Your task to perform on an android device: toggle pop-ups in chrome Image 0: 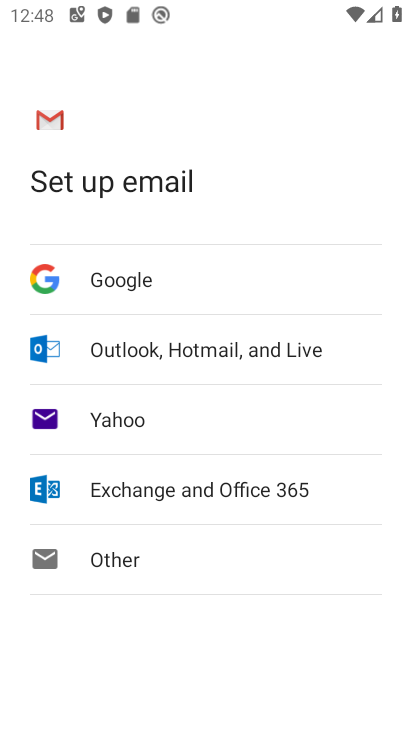
Step 0: press home button
Your task to perform on an android device: toggle pop-ups in chrome Image 1: 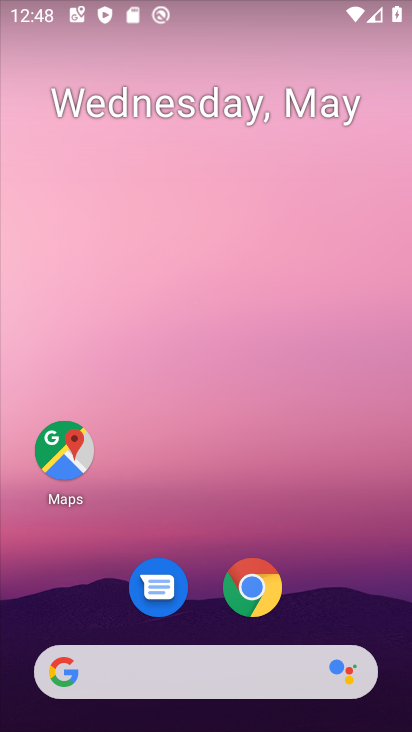
Step 1: drag from (387, 592) to (370, 237)
Your task to perform on an android device: toggle pop-ups in chrome Image 2: 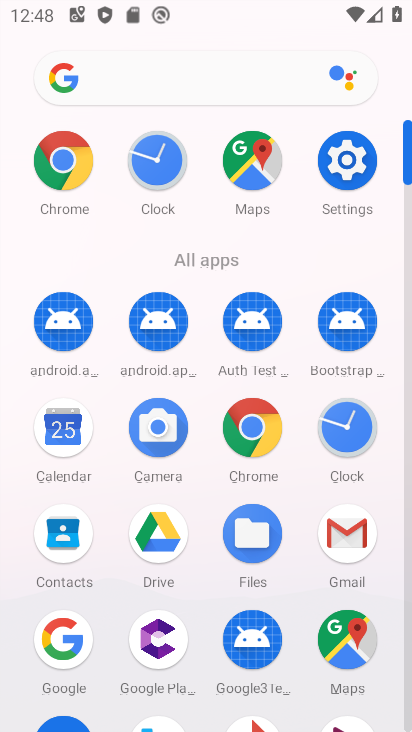
Step 2: click (270, 444)
Your task to perform on an android device: toggle pop-ups in chrome Image 3: 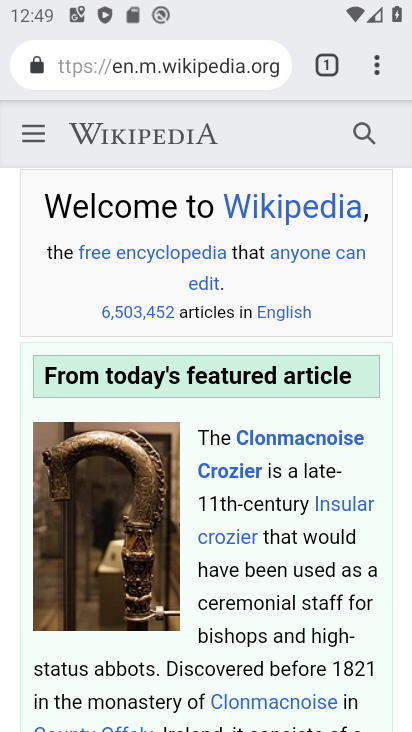
Step 3: click (377, 62)
Your task to perform on an android device: toggle pop-ups in chrome Image 4: 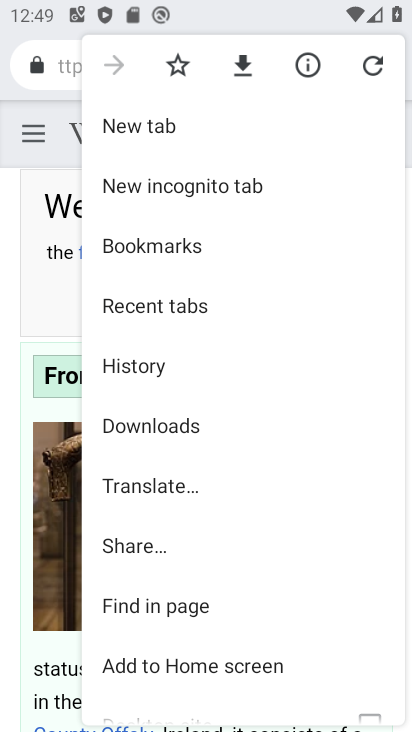
Step 4: drag from (300, 490) to (302, 372)
Your task to perform on an android device: toggle pop-ups in chrome Image 5: 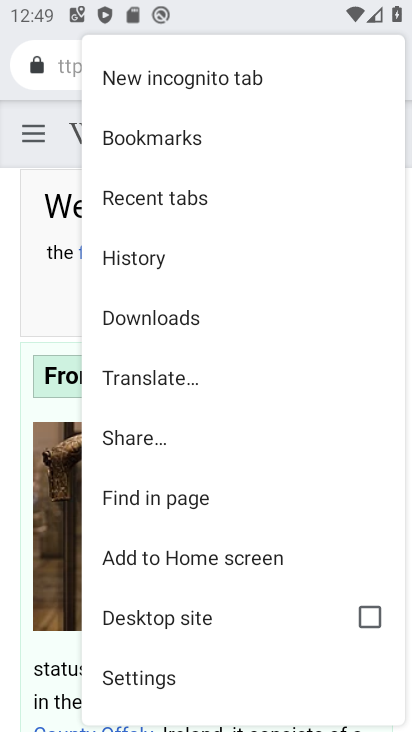
Step 5: drag from (313, 602) to (328, 461)
Your task to perform on an android device: toggle pop-ups in chrome Image 6: 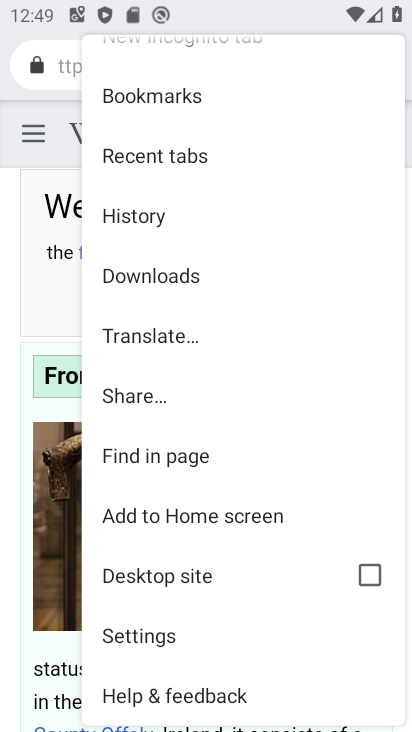
Step 6: click (160, 632)
Your task to perform on an android device: toggle pop-ups in chrome Image 7: 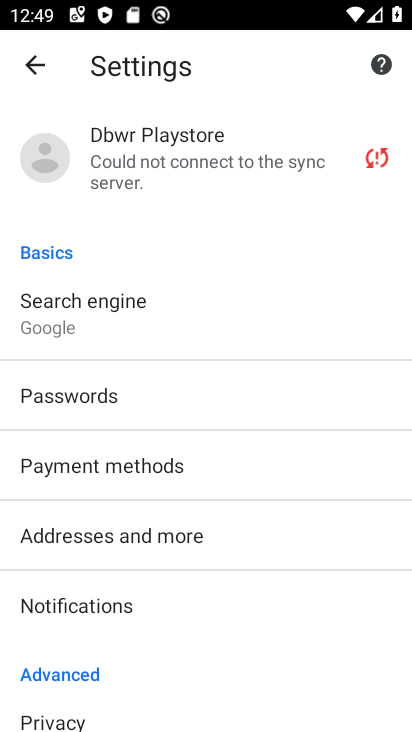
Step 7: drag from (289, 587) to (294, 494)
Your task to perform on an android device: toggle pop-ups in chrome Image 8: 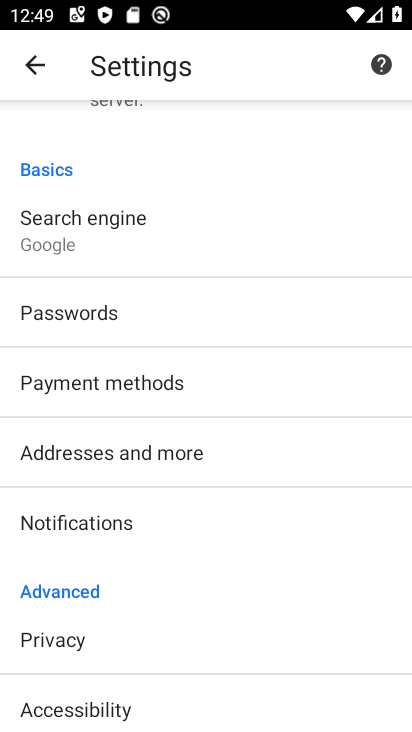
Step 8: drag from (313, 615) to (307, 517)
Your task to perform on an android device: toggle pop-ups in chrome Image 9: 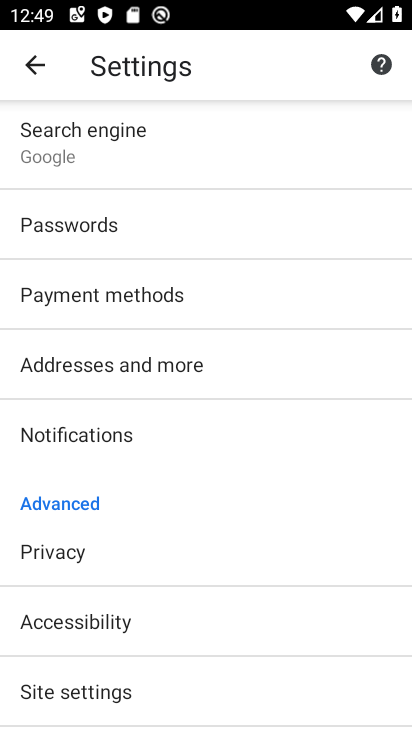
Step 9: drag from (317, 622) to (307, 528)
Your task to perform on an android device: toggle pop-ups in chrome Image 10: 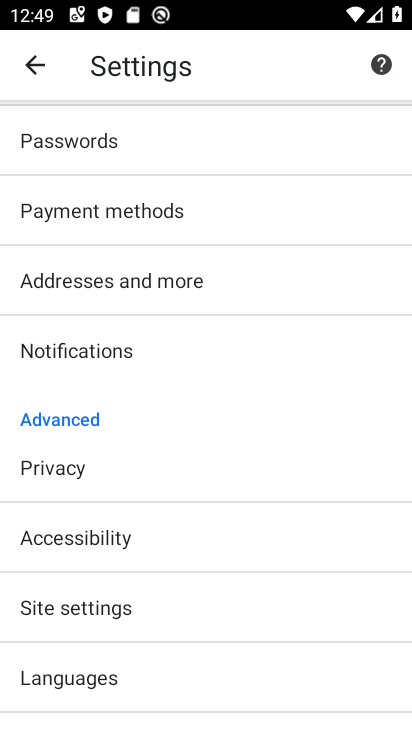
Step 10: drag from (315, 594) to (320, 512)
Your task to perform on an android device: toggle pop-ups in chrome Image 11: 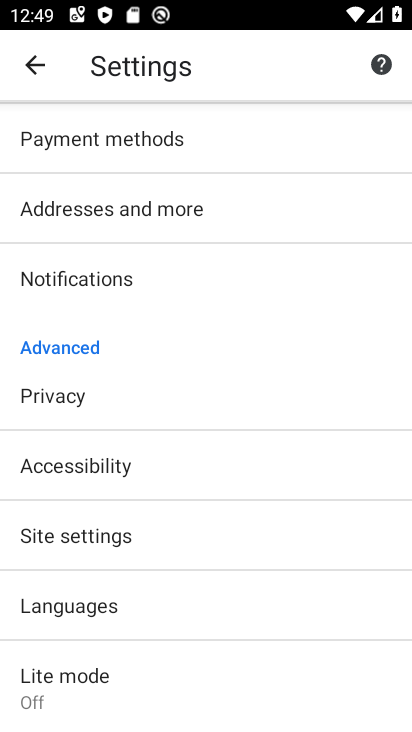
Step 11: drag from (339, 624) to (343, 538)
Your task to perform on an android device: toggle pop-ups in chrome Image 12: 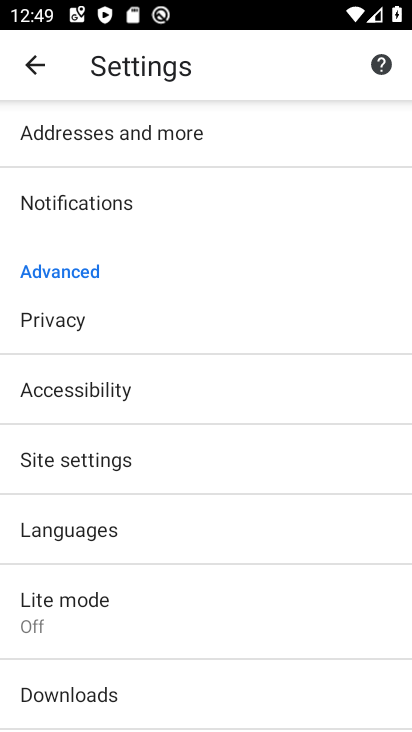
Step 12: drag from (332, 649) to (333, 507)
Your task to perform on an android device: toggle pop-ups in chrome Image 13: 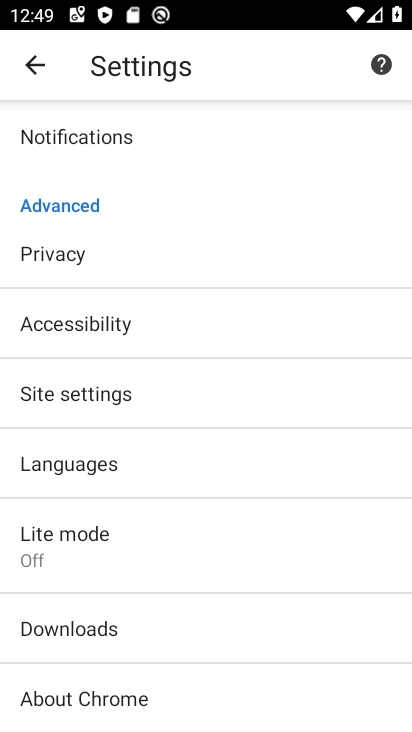
Step 13: click (292, 402)
Your task to perform on an android device: toggle pop-ups in chrome Image 14: 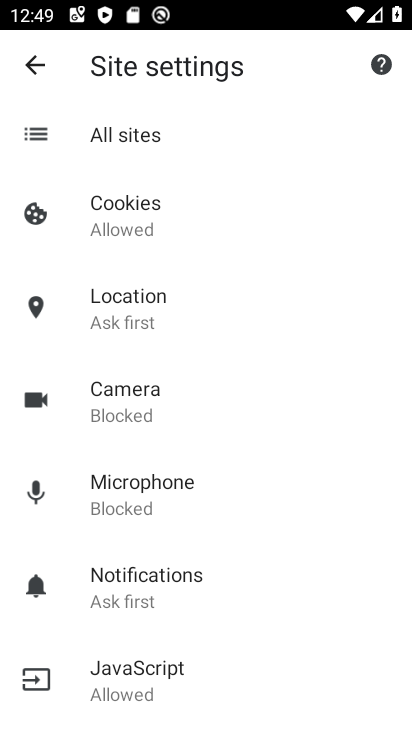
Step 14: drag from (302, 520) to (311, 402)
Your task to perform on an android device: toggle pop-ups in chrome Image 15: 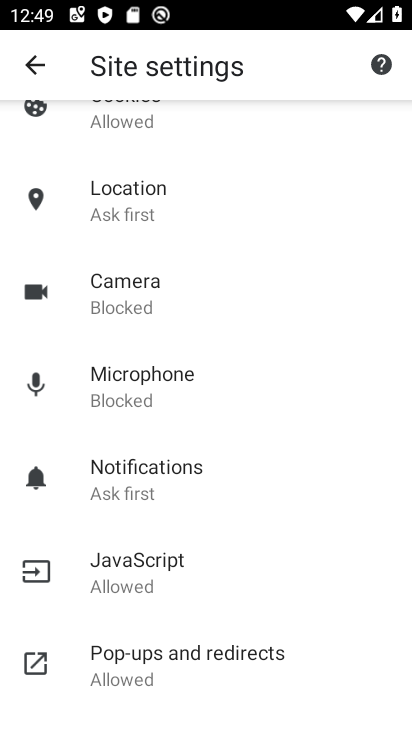
Step 15: drag from (358, 534) to (351, 445)
Your task to perform on an android device: toggle pop-ups in chrome Image 16: 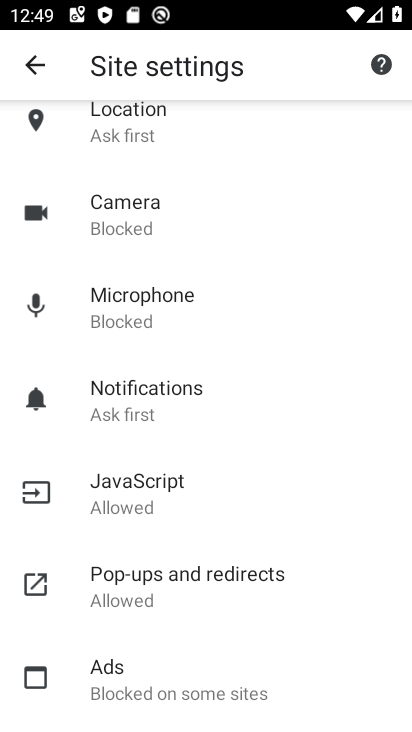
Step 16: drag from (355, 563) to (359, 462)
Your task to perform on an android device: toggle pop-ups in chrome Image 17: 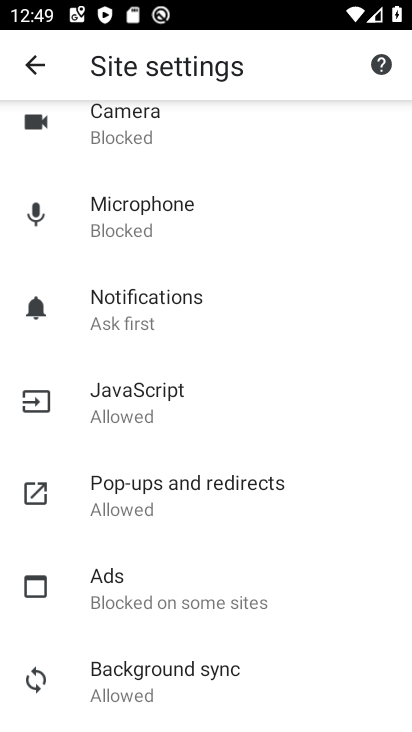
Step 17: drag from (364, 566) to (367, 468)
Your task to perform on an android device: toggle pop-ups in chrome Image 18: 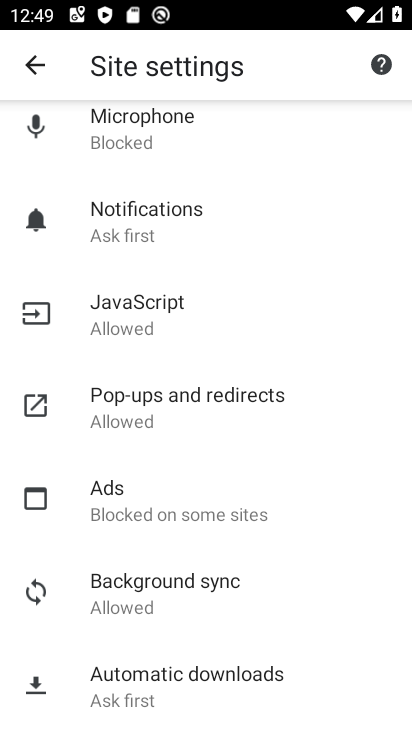
Step 18: click (294, 428)
Your task to perform on an android device: toggle pop-ups in chrome Image 19: 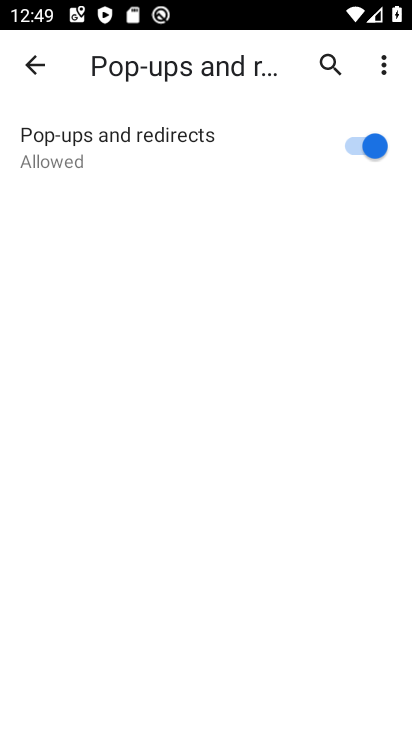
Step 19: click (360, 146)
Your task to perform on an android device: toggle pop-ups in chrome Image 20: 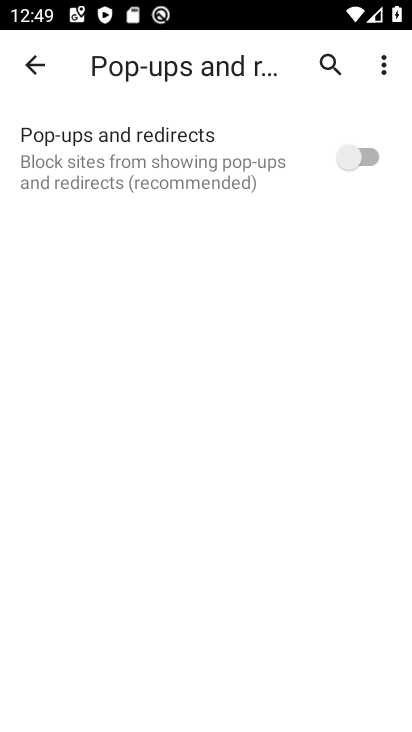
Step 20: task complete